Your task to perform on an android device: Open Google Image 0: 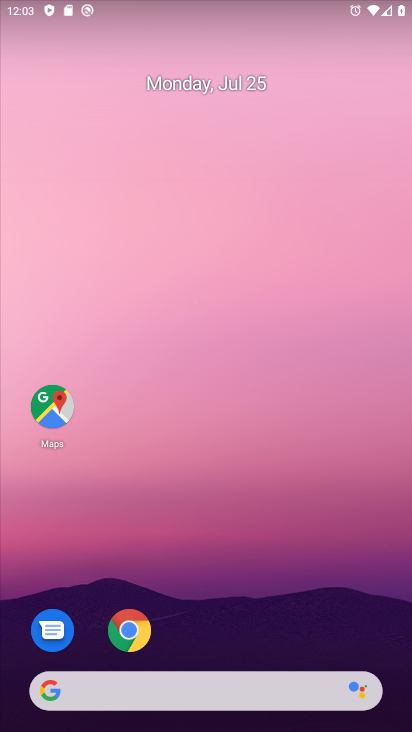
Step 0: click (69, 52)
Your task to perform on an android device: Open Google Image 1: 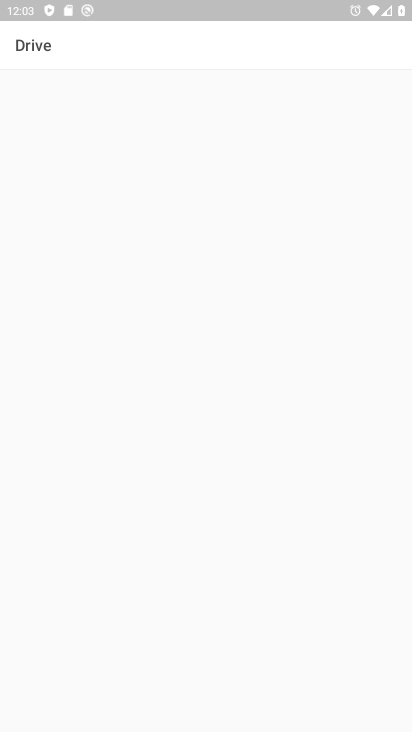
Step 1: click (75, 46)
Your task to perform on an android device: Open Google Image 2: 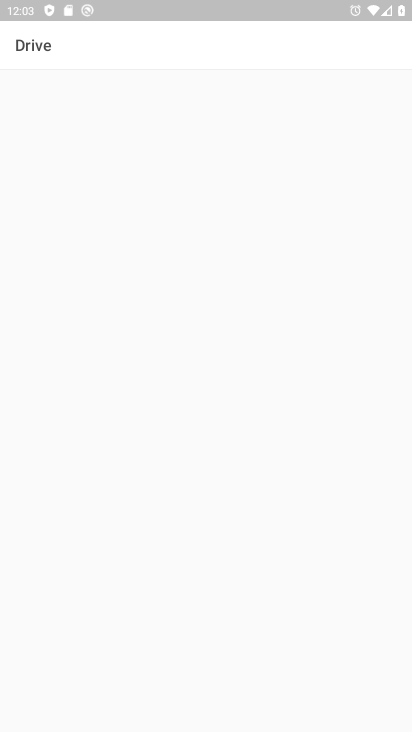
Step 2: click (78, 46)
Your task to perform on an android device: Open Google Image 3: 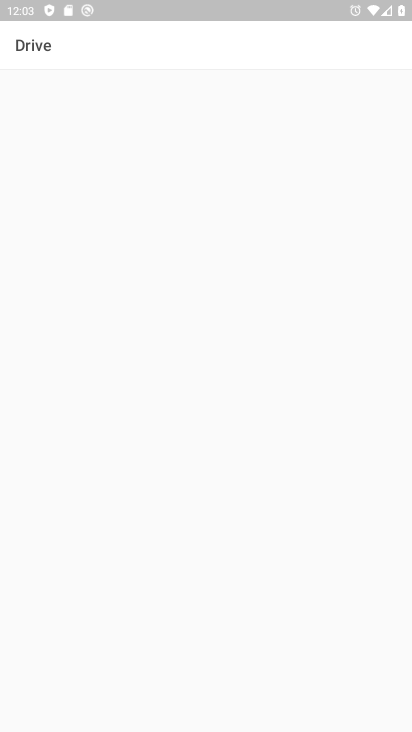
Step 3: press back button
Your task to perform on an android device: Open Google Image 4: 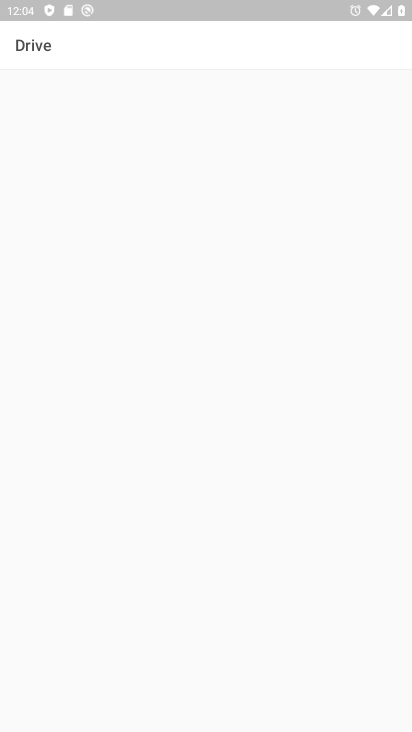
Step 4: press back button
Your task to perform on an android device: Open Google Image 5: 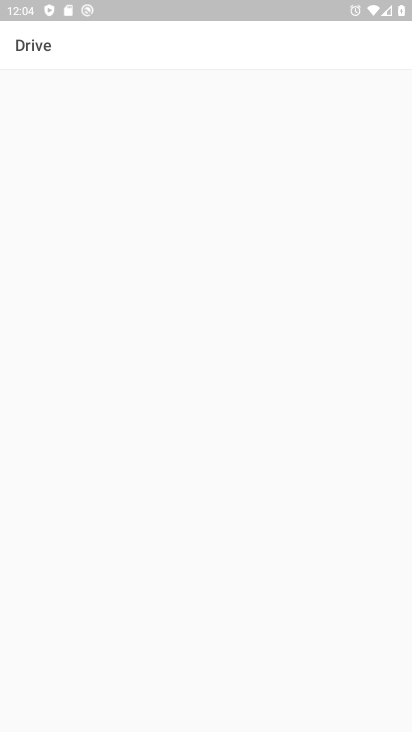
Step 5: press home button
Your task to perform on an android device: Open Google Image 6: 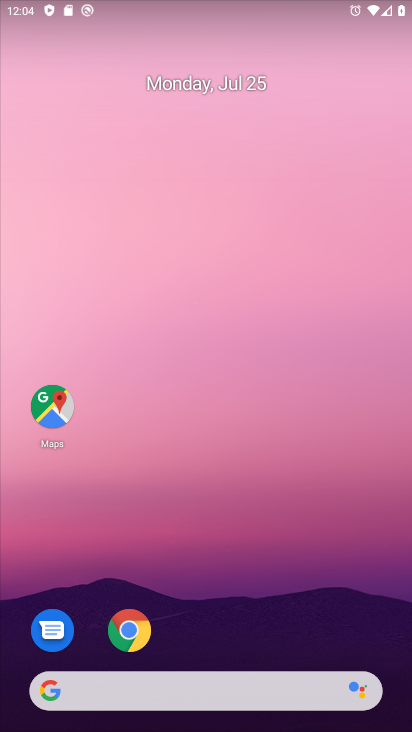
Step 6: drag from (226, 179) to (204, 9)
Your task to perform on an android device: Open Google Image 7: 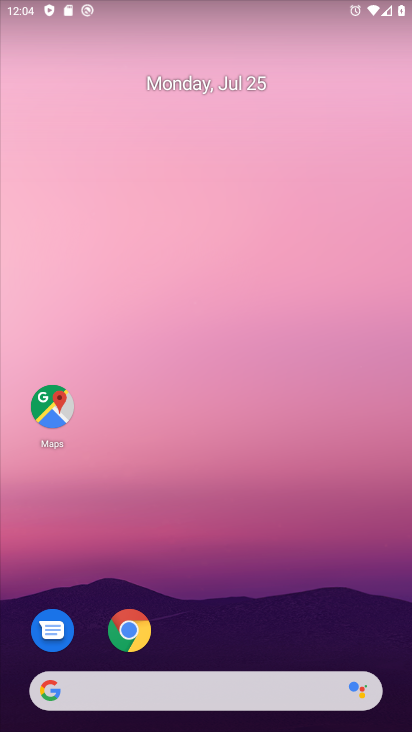
Step 7: drag from (174, 575) to (91, 19)
Your task to perform on an android device: Open Google Image 8: 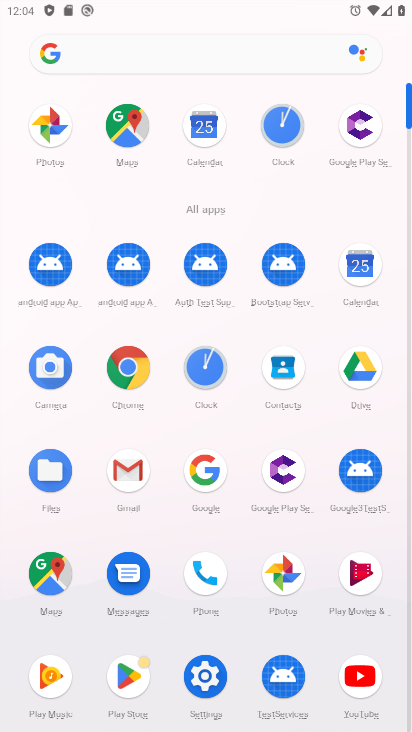
Step 8: drag from (311, 445) to (303, 124)
Your task to perform on an android device: Open Google Image 9: 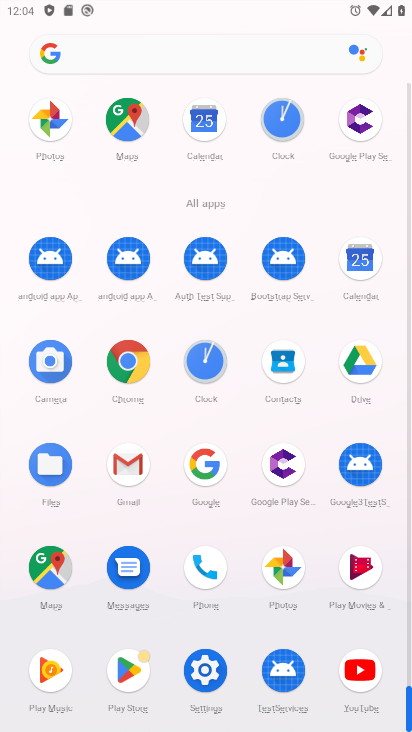
Step 9: click (210, 472)
Your task to perform on an android device: Open Google Image 10: 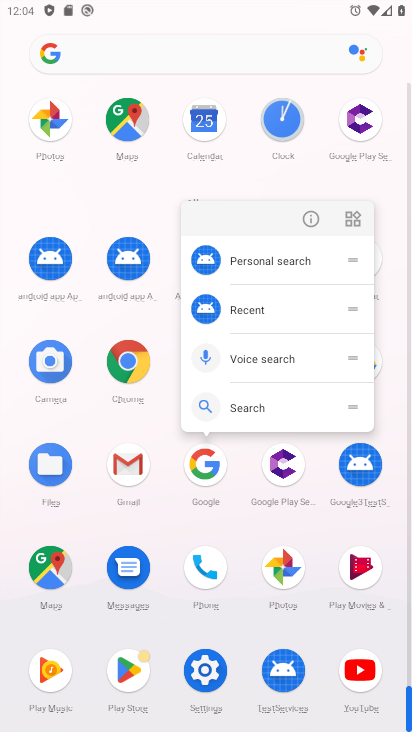
Step 10: click (223, 454)
Your task to perform on an android device: Open Google Image 11: 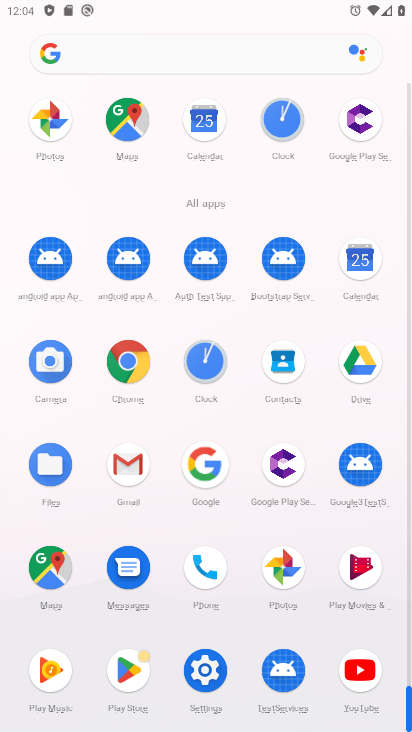
Step 11: click (206, 468)
Your task to perform on an android device: Open Google Image 12: 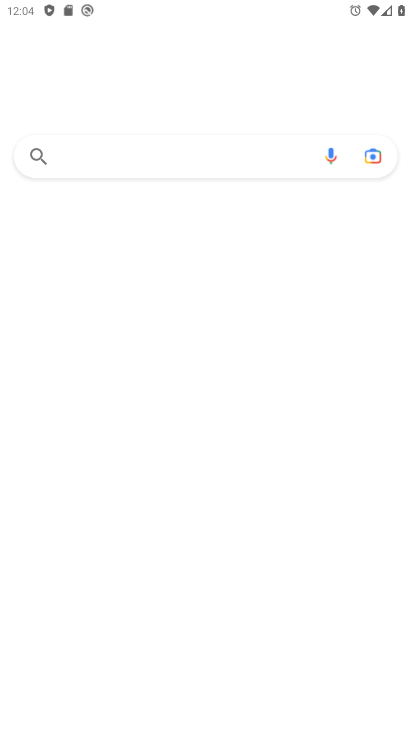
Step 12: drag from (174, 462) to (212, 471)
Your task to perform on an android device: Open Google Image 13: 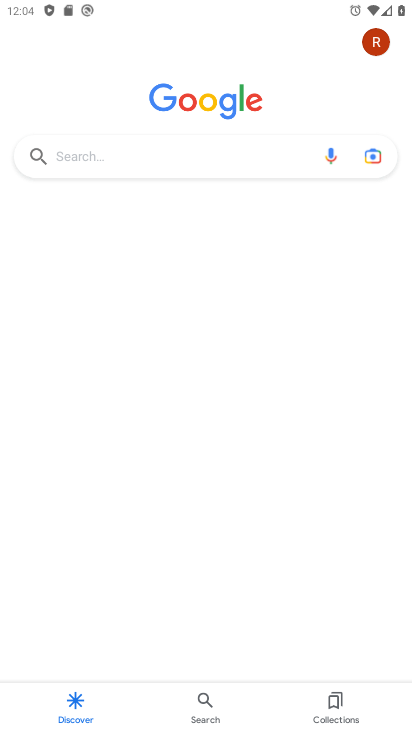
Step 13: click (215, 472)
Your task to perform on an android device: Open Google Image 14: 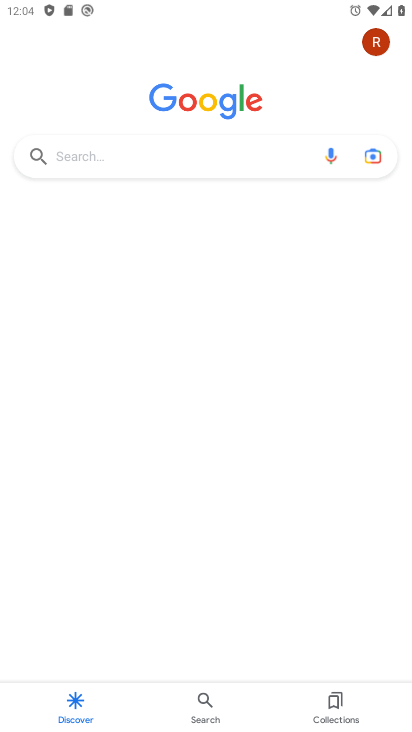
Step 14: click (214, 472)
Your task to perform on an android device: Open Google Image 15: 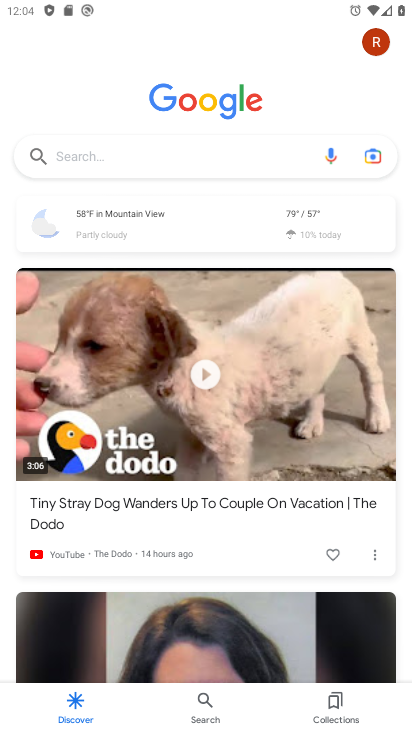
Step 15: task complete